Your task to perform on an android device: Add lg ultragear to the cart on bestbuy.com, then select checkout. Image 0: 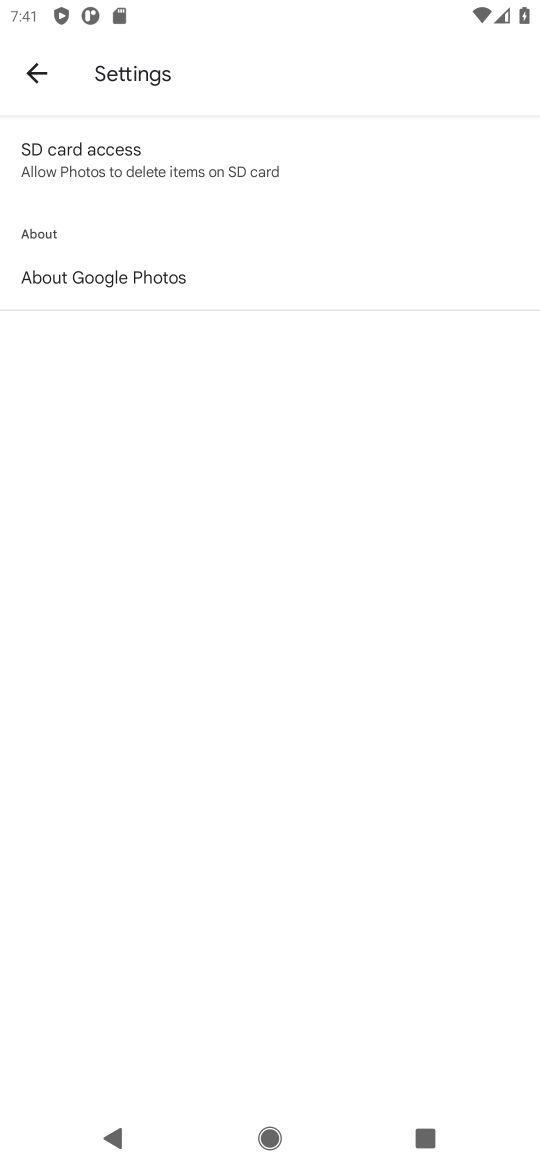
Step 0: press home button
Your task to perform on an android device: Add lg ultragear to the cart on bestbuy.com, then select checkout. Image 1: 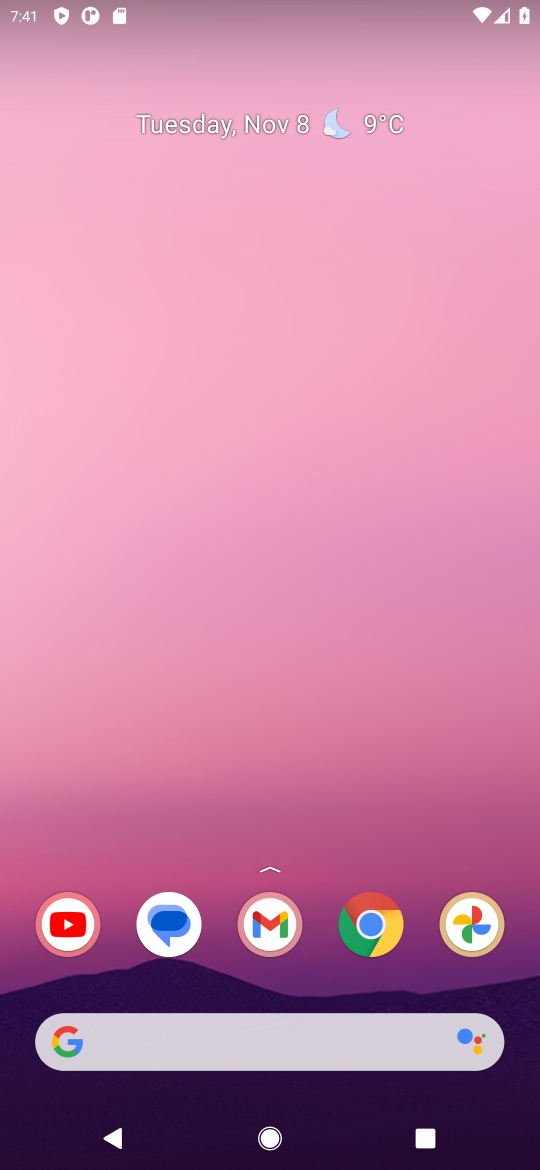
Step 1: click (242, 1037)
Your task to perform on an android device: Add lg ultragear to the cart on bestbuy.com, then select checkout. Image 2: 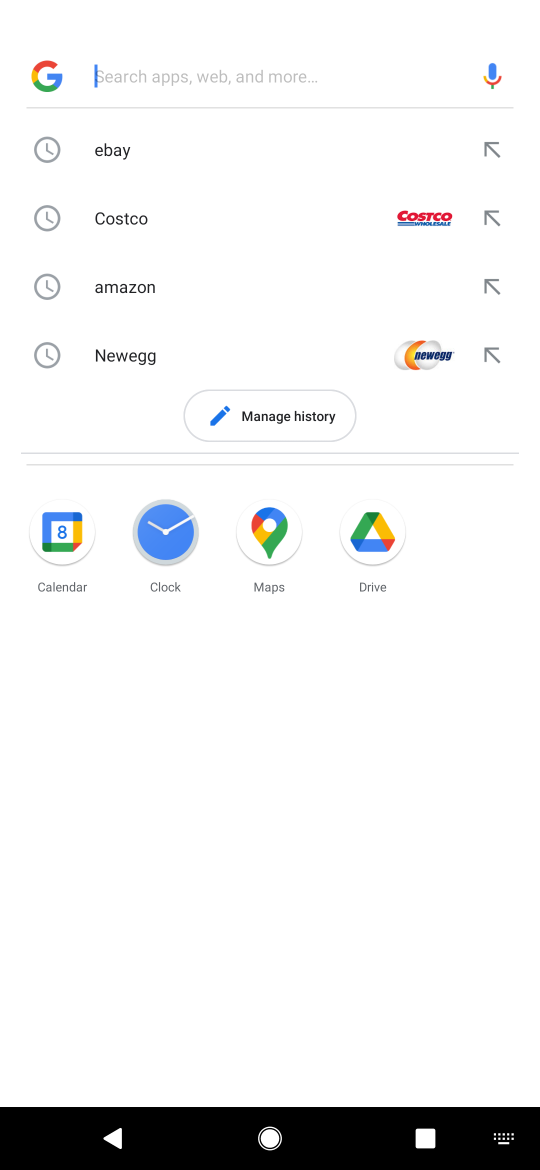
Step 2: type "bestbuy.com"
Your task to perform on an android device: Add lg ultragear to the cart on bestbuy.com, then select checkout. Image 3: 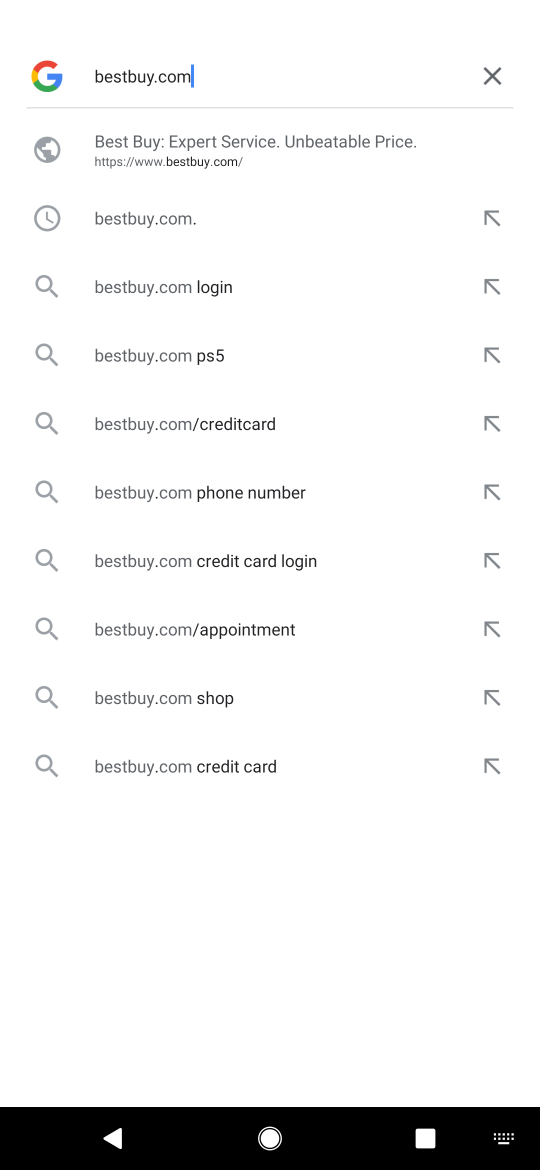
Step 3: click (235, 153)
Your task to perform on an android device: Add lg ultragear to the cart on bestbuy.com, then select checkout. Image 4: 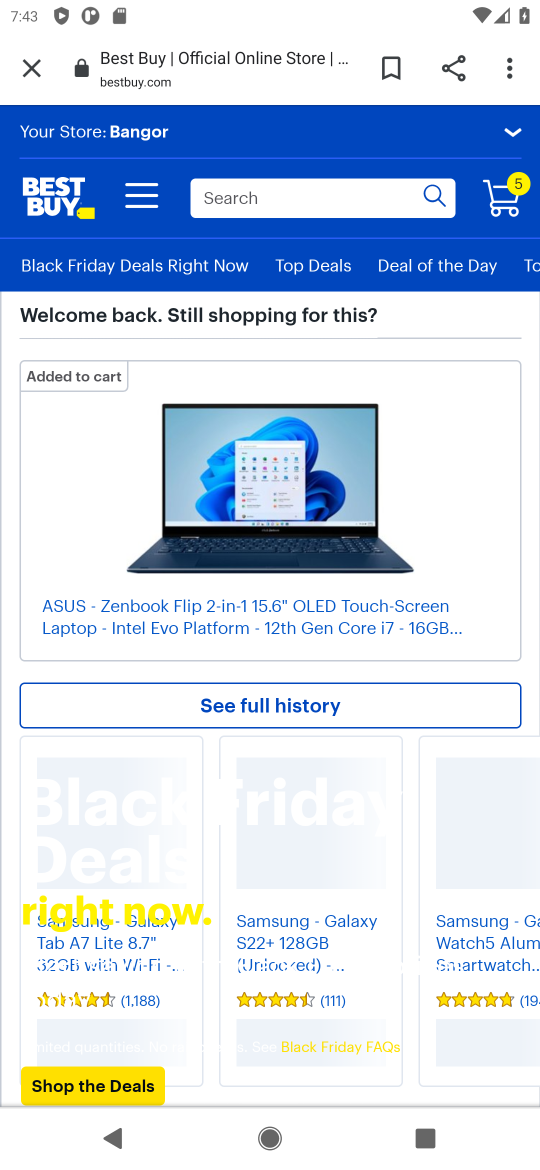
Step 4: click (501, 200)
Your task to perform on an android device: Add lg ultragear to the cart on bestbuy.com, then select checkout. Image 5: 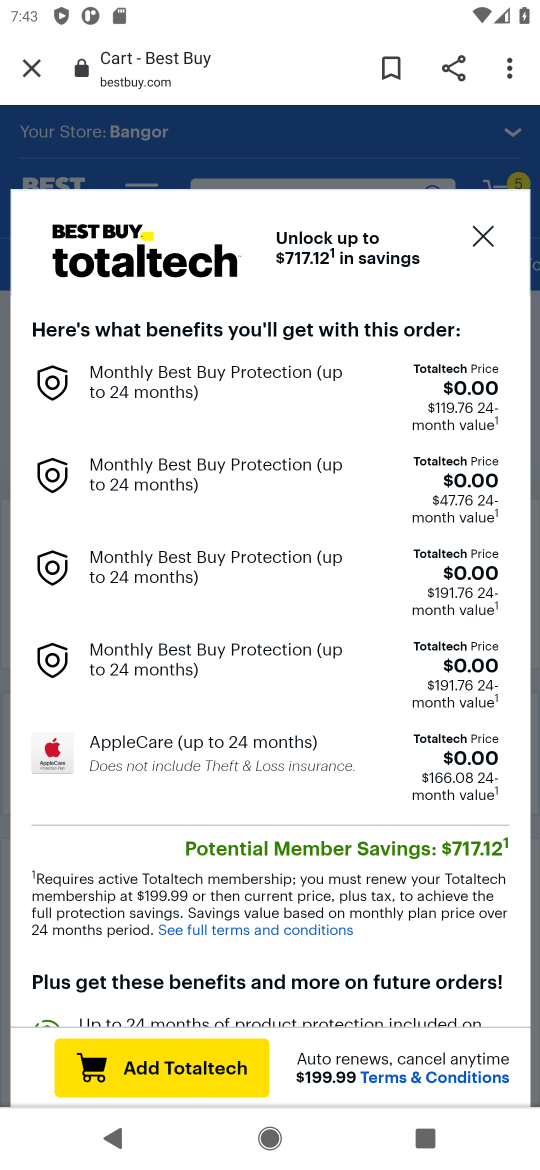
Step 5: click (469, 232)
Your task to perform on an android device: Add lg ultragear to the cart on bestbuy.com, then select checkout. Image 6: 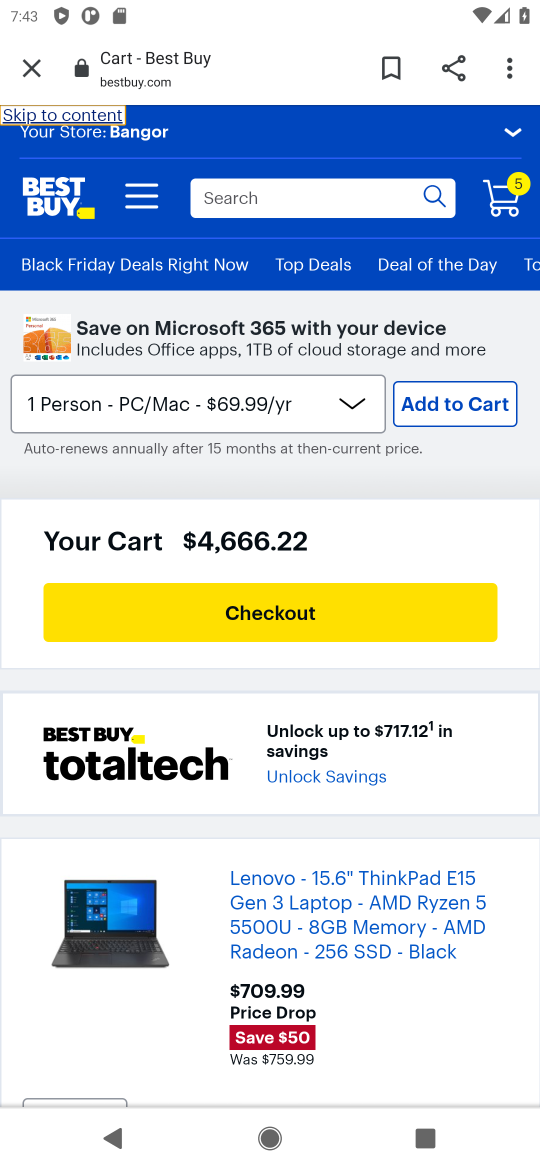
Step 6: click (266, 606)
Your task to perform on an android device: Add lg ultragear to the cart on bestbuy.com, then select checkout. Image 7: 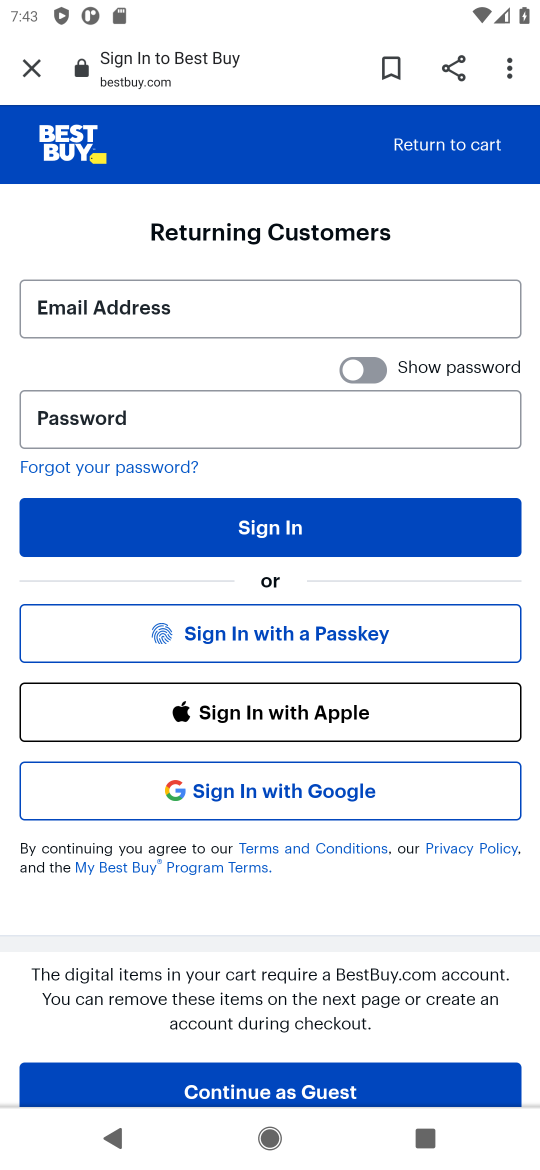
Step 7: task complete